Your task to perform on an android device: search for starred emails in the gmail app Image 0: 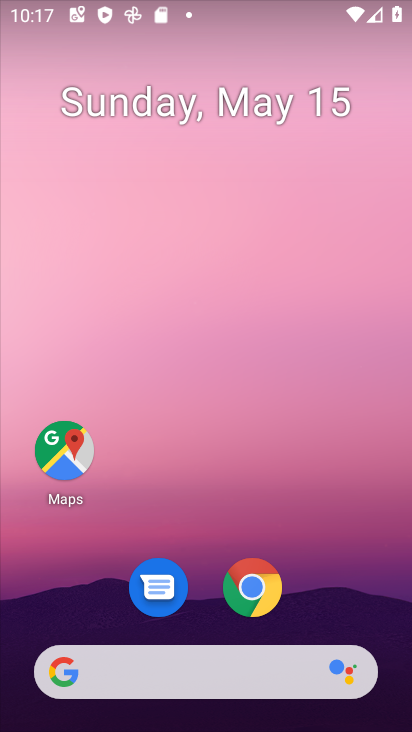
Step 0: drag from (391, 625) to (360, 88)
Your task to perform on an android device: search for starred emails in the gmail app Image 1: 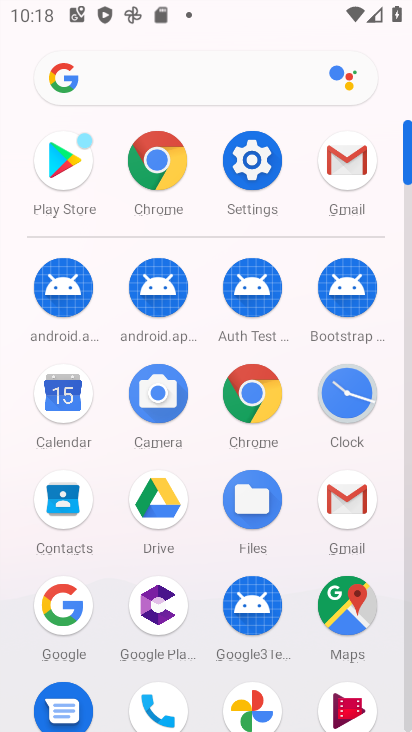
Step 1: click (337, 507)
Your task to perform on an android device: search for starred emails in the gmail app Image 2: 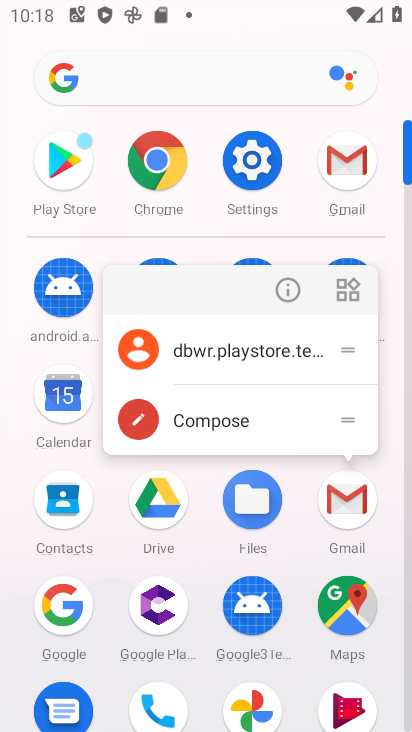
Step 2: click (337, 507)
Your task to perform on an android device: search for starred emails in the gmail app Image 3: 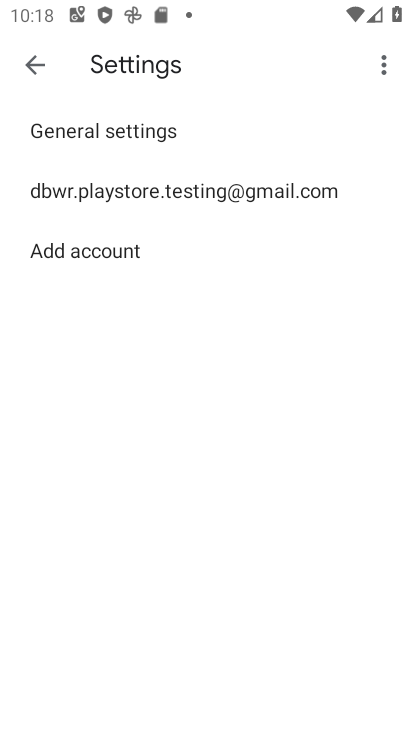
Step 3: press back button
Your task to perform on an android device: search for starred emails in the gmail app Image 4: 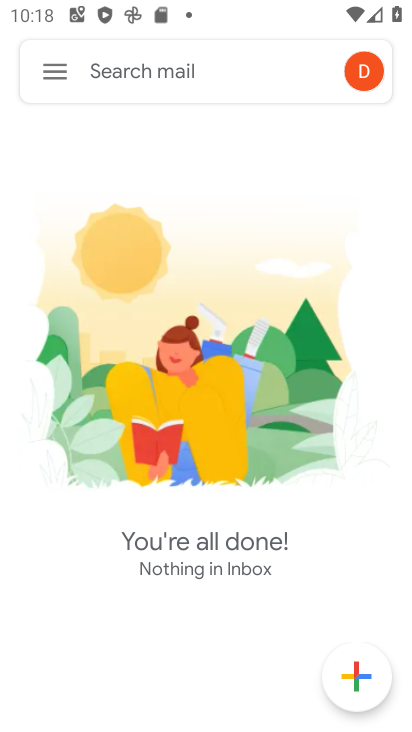
Step 4: click (55, 74)
Your task to perform on an android device: search for starred emails in the gmail app Image 5: 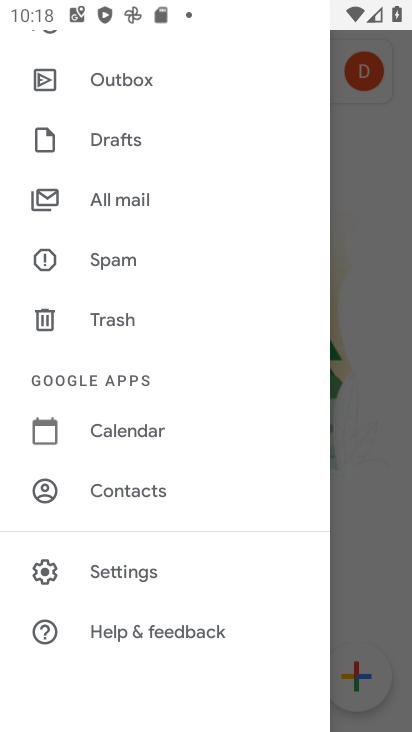
Step 5: drag from (192, 159) to (188, 615)
Your task to perform on an android device: search for starred emails in the gmail app Image 6: 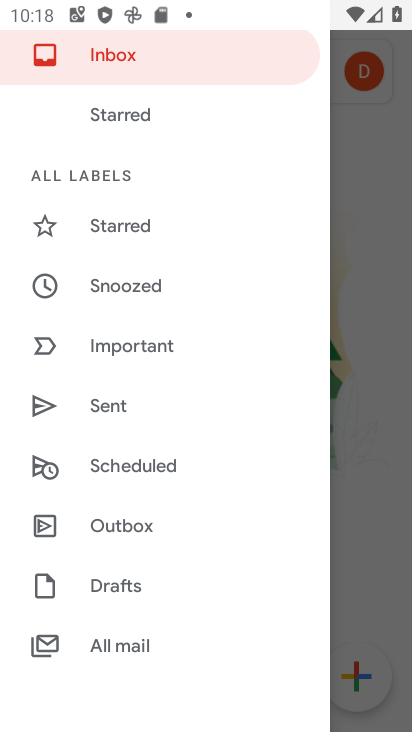
Step 6: click (130, 229)
Your task to perform on an android device: search for starred emails in the gmail app Image 7: 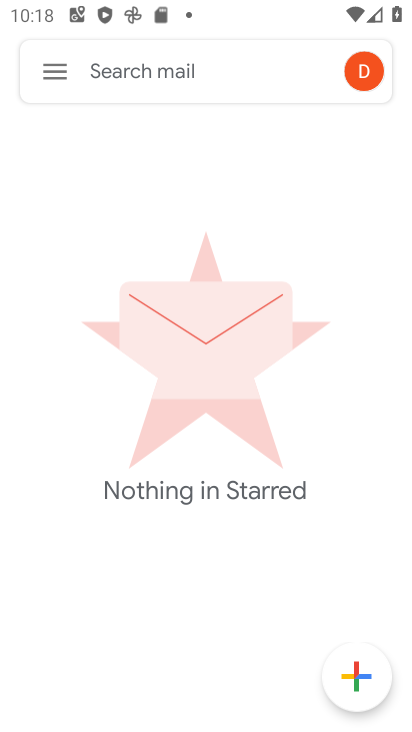
Step 7: task complete